Your task to perform on an android device: Open Amazon Image 0: 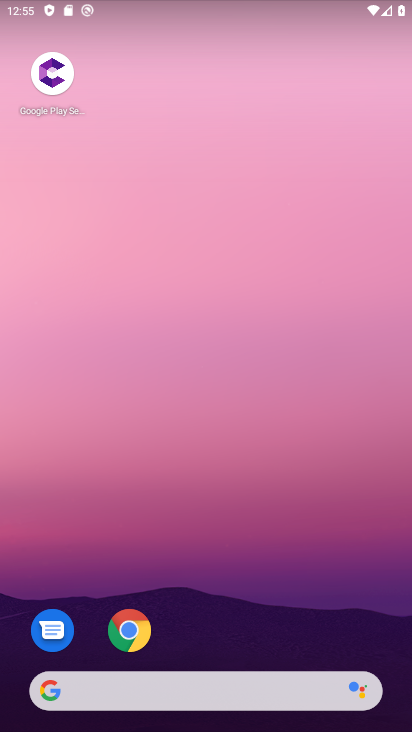
Step 0: drag from (182, 673) to (342, 166)
Your task to perform on an android device: Open Amazon Image 1: 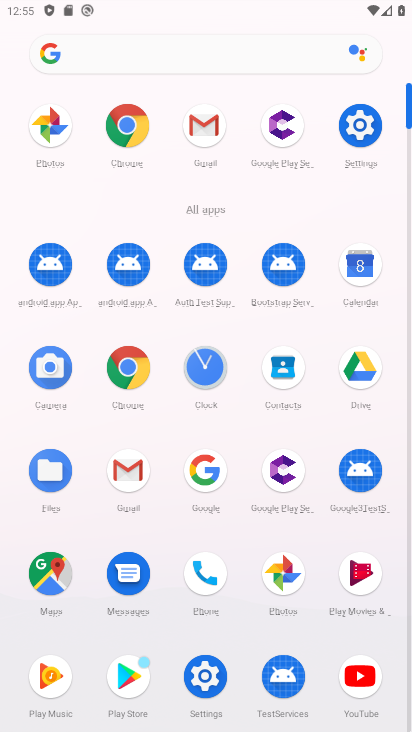
Step 1: click (123, 382)
Your task to perform on an android device: Open Amazon Image 2: 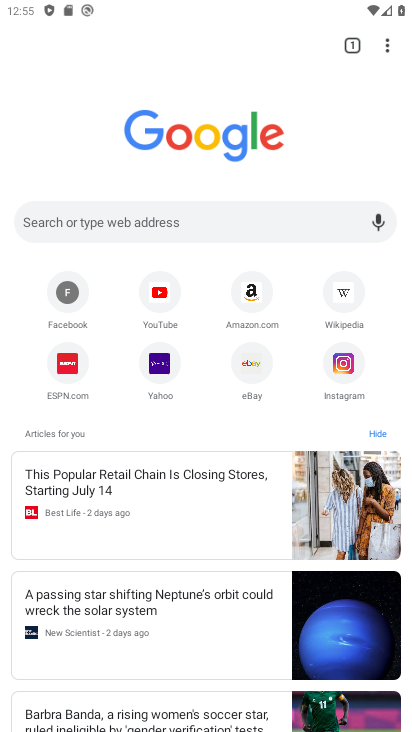
Step 2: click (257, 301)
Your task to perform on an android device: Open Amazon Image 3: 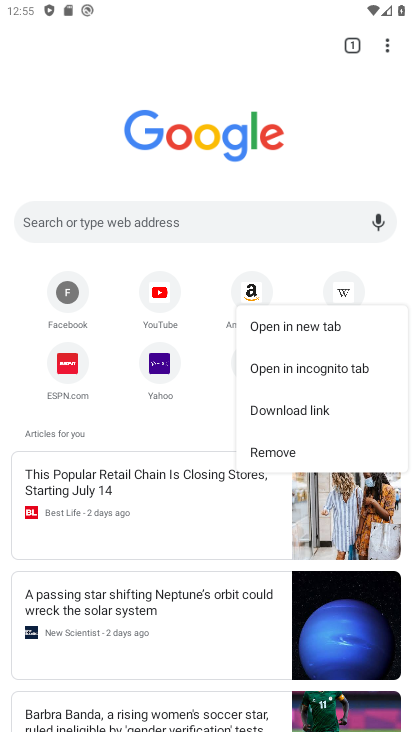
Step 3: click (257, 300)
Your task to perform on an android device: Open Amazon Image 4: 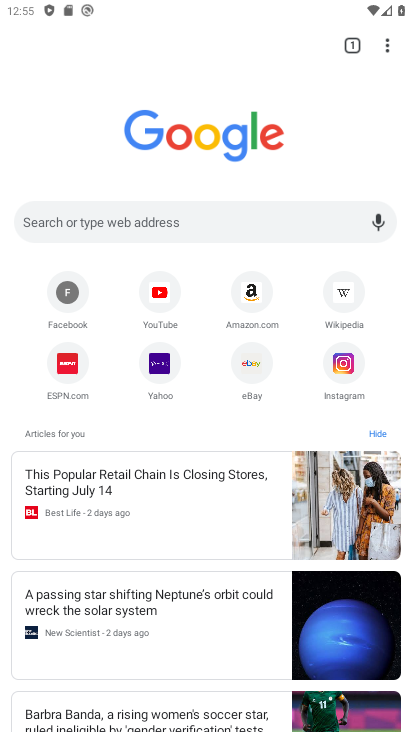
Step 4: click (258, 290)
Your task to perform on an android device: Open Amazon Image 5: 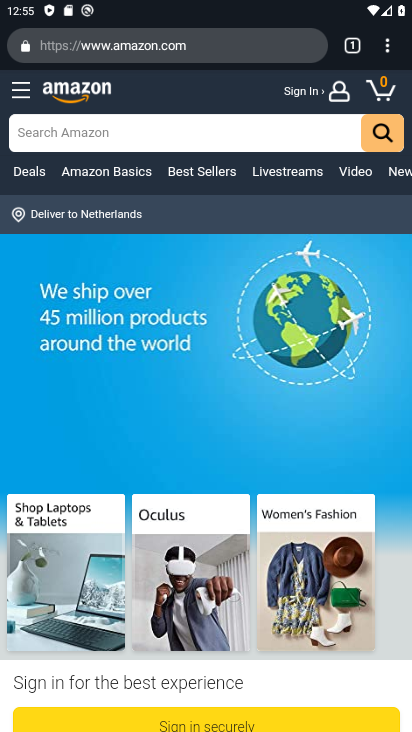
Step 5: task complete